Your task to perform on an android device: Open Youtube and go to the subscriptions tab Image 0: 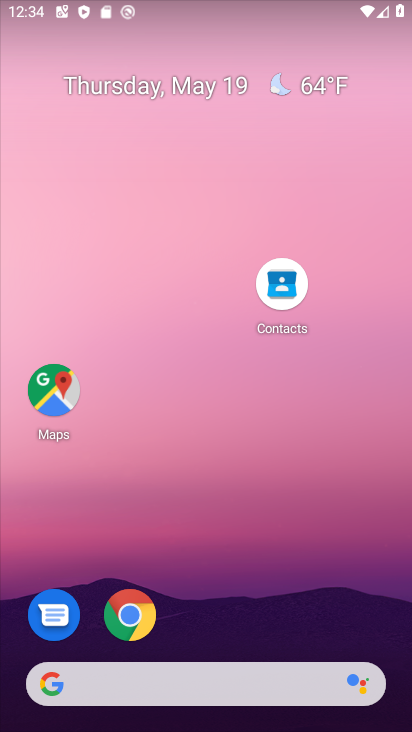
Step 0: drag from (236, 444) to (235, 14)
Your task to perform on an android device: Open Youtube and go to the subscriptions tab Image 1: 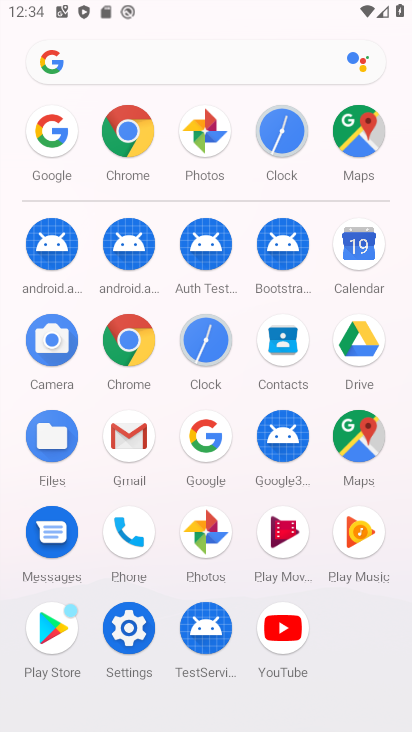
Step 1: click (281, 619)
Your task to perform on an android device: Open Youtube and go to the subscriptions tab Image 2: 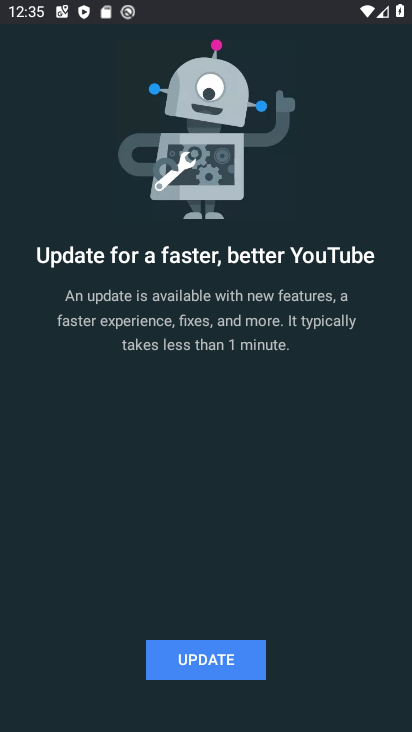
Step 2: click (247, 650)
Your task to perform on an android device: Open Youtube and go to the subscriptions tab Image 3: 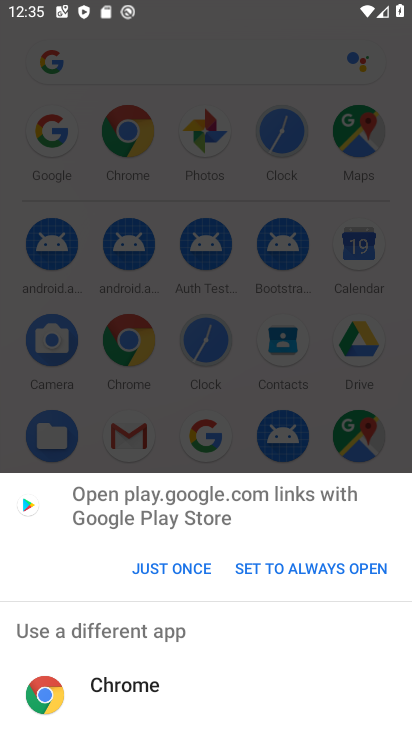
Step 3: click (155, 568)
Your task to perform on an android device: Open Youtube and go to the subscriptions tab Image 4: 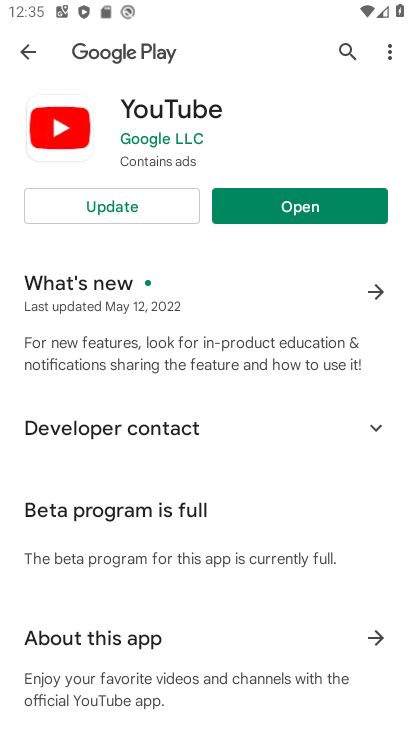
Step 4: click (141, 203)
Your task to perform on an android device: Open Youtube and go to the subscriptions tab Image 5: 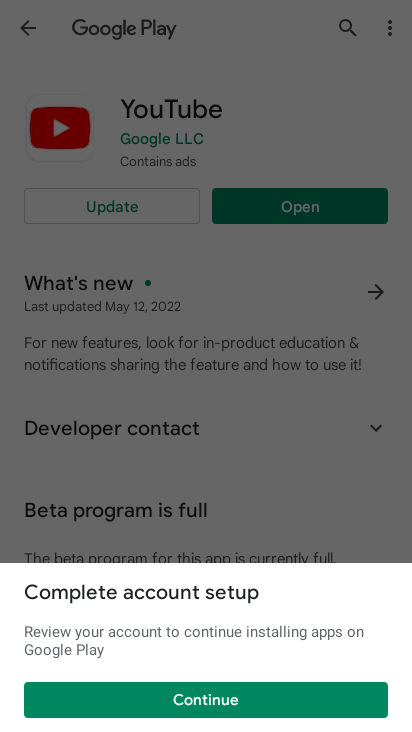
Step 5: click (300, 695)
Your task to perform on an android device: Open Youtube and go to the subscriptions tab Image 6: 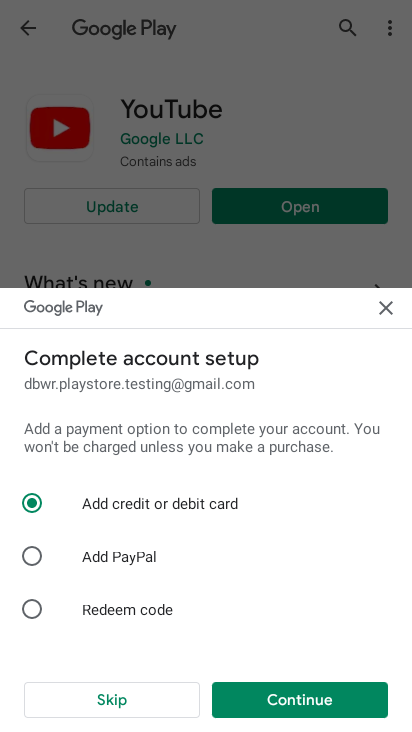
Step 6: click (388, 305)
Your task to perform on an android device: Open Youtube and go to the subscriptions tab Image 7: 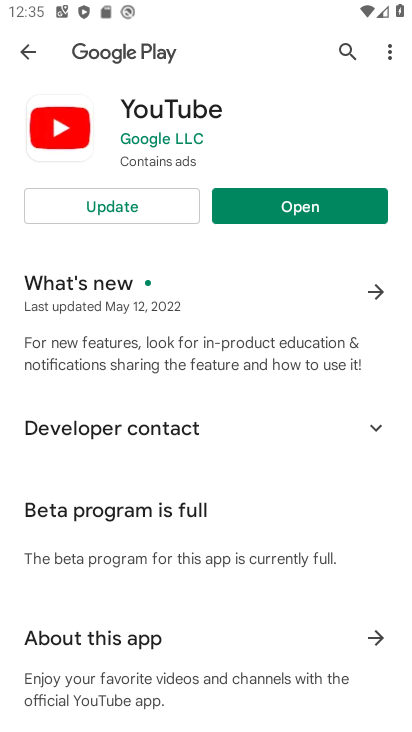
Step 7: task complete